Your task to perform on an android device: toggle translation in the chrome app Image 0: 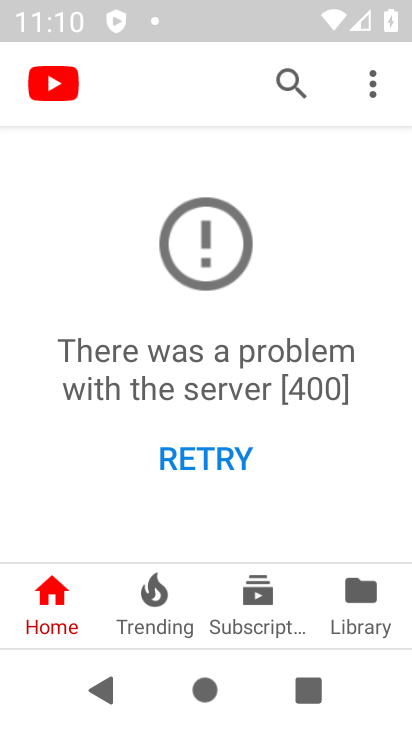
Step 0: press home button
Your task to perform on an android device: toggle translation in the chrome app Image 1: 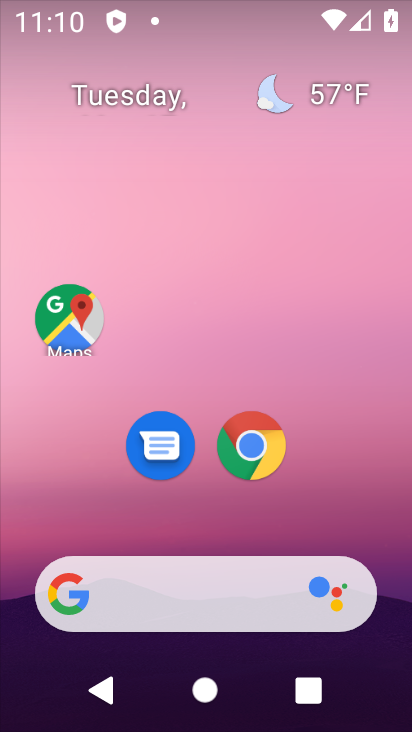
Step 1: drag from (386, 529) to (372, 215)
Your task to perform on an android device: toggle translation in the chrome app Image 2: 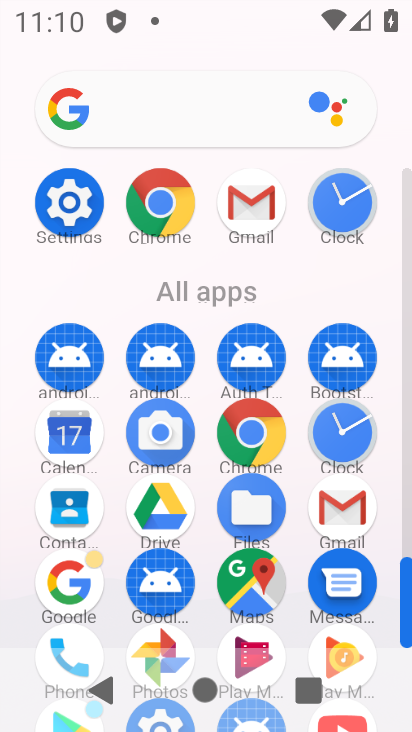
Step 2: click (274, 447)
Your task to perform on an android device: toggle translation in the chrome app Image 3: 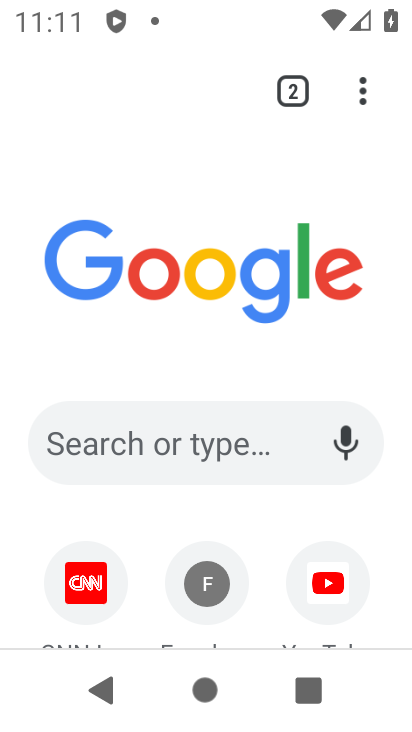
Step 3: click (366, 102)
Your task to perform on an android device: toggle translation in the chrome app Image 4: 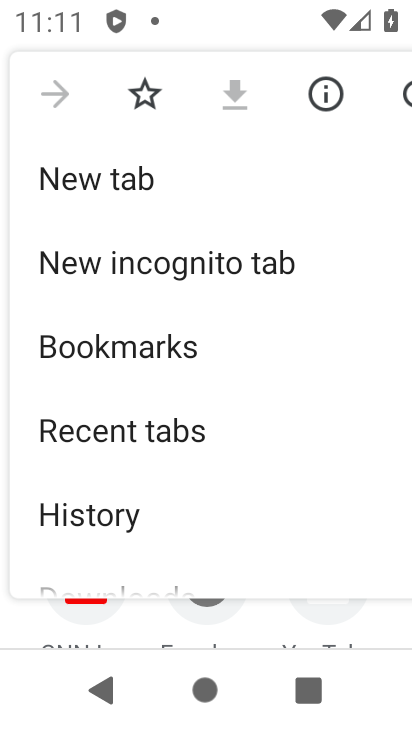
Step 4: drag from (343, 520) to (344, 391)
Your task to perform on an android device: toggle translation in the chrome app Image 5: 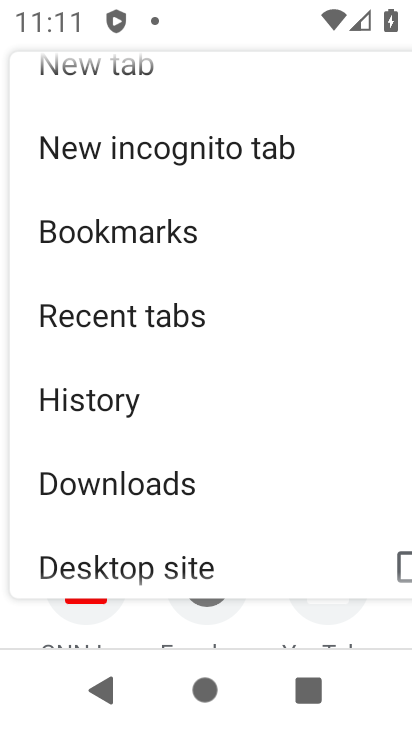
Step 5: drag from (329, 520) to (329, 431)
Your task to perform on an android device: toggle translation in the chrome app Image 6: 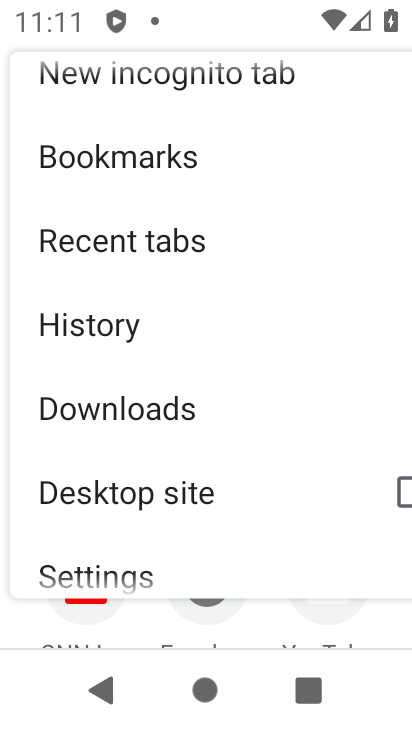
Step 6: drag from (318, 529) to (316, 424)
Your task to perform on an android device: toggle translation in the chrome app Image 7: 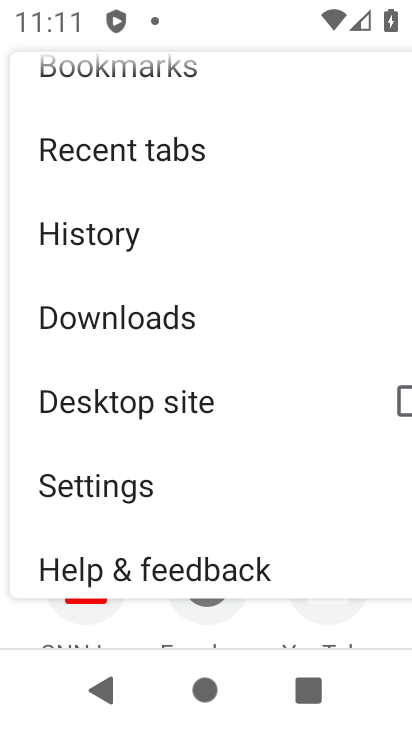
Step 7: drag from (298, 529) to (299, 399)
Your task to perform on an android device: toggle translation in the chrome app Image 8: 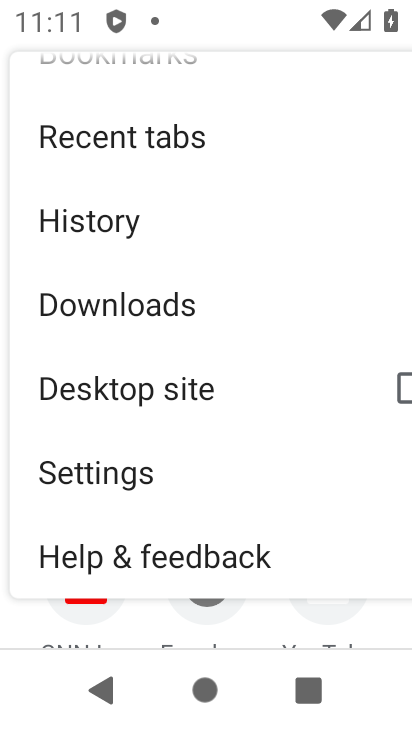
Step 8: drag from (315, 510) to (320, 393)
Your task to perform on an android device: toggle translation in the chrome app Image 9: 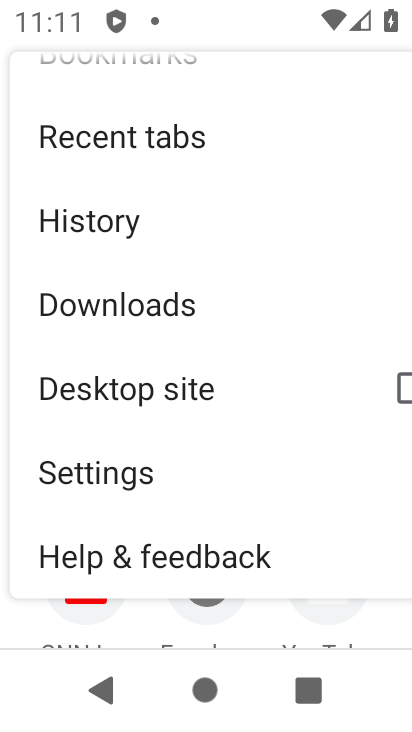
Step 9: drag from (300, 325) to (300, 385)
Your task to perform on an android device: toggle translation in the chrome app Image 10: 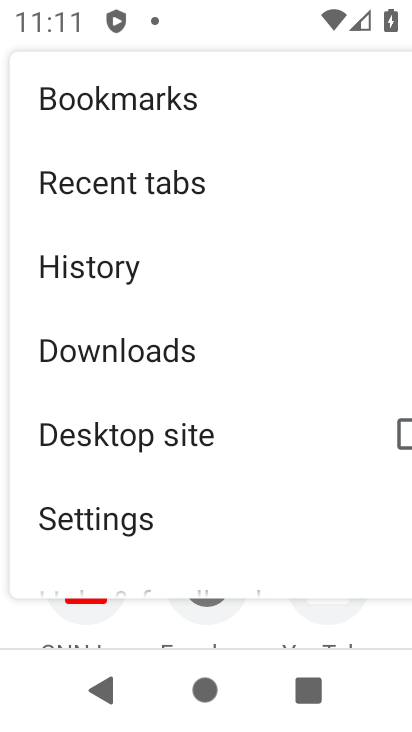
Step 10: click (152, 524)
Your task to perform on an android device: toggle translation in the chrome app Image 11: 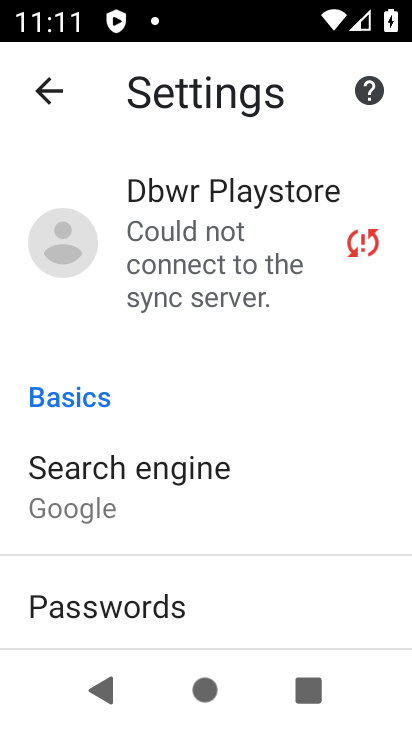
Step 11: drag from (295, 519) to (307, 357)
Your task to perform on an android device: toggle translation in the chrome app Image 12: 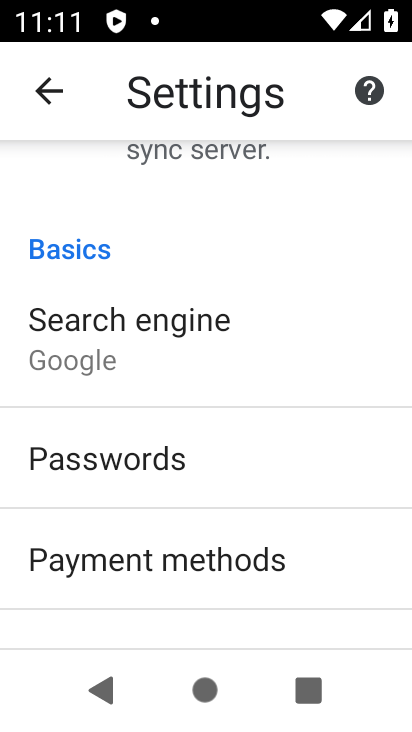
Step 12: drag from (330, 522) to (333, 320)
Your task to perform on an android device: toggle translation in the chrome app Image 13: 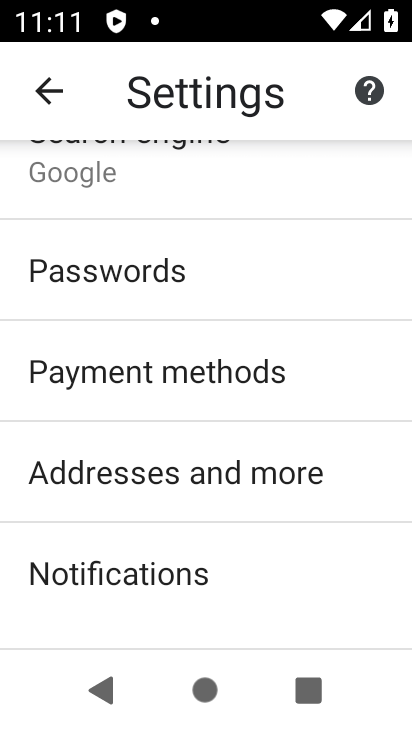
Step 13: drag from (339, 575) to (345, 397)
Your task to perform on an android device: toggle translation in the chrome app Image 14: 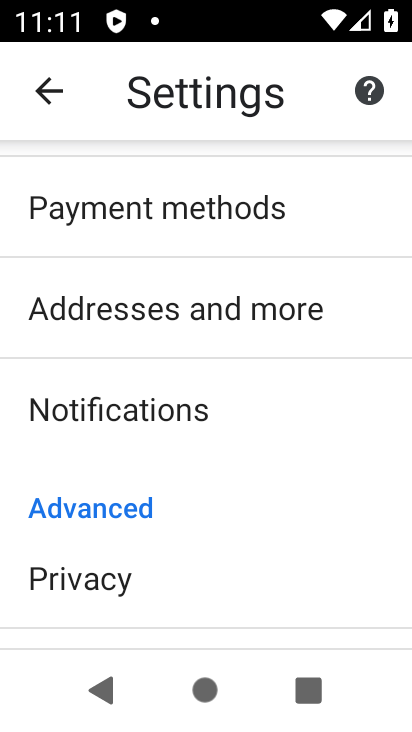
Step 14: drag from (320, 590) to (332, 430)
Your task to perform on an android device: toggle translation in the chrome app Image 15: 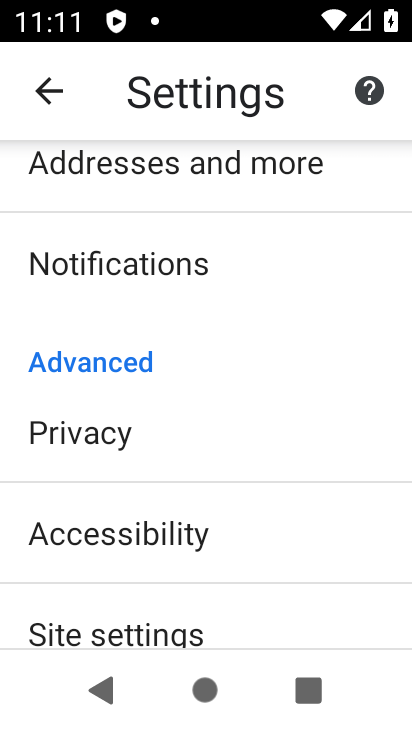
Step 15: drag from (303, 578) to (316, 406)
Your task to perform on an android device: toggle translation in the chrome app Image 16: 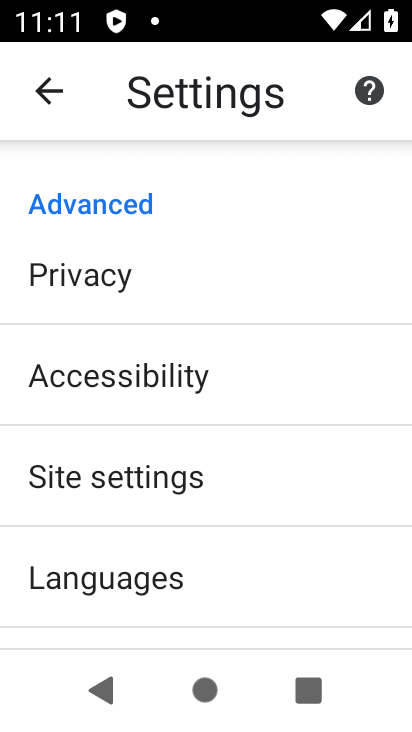
Step 16: drag from (283, 591) to (281, 460)
Your task to perform on an android device: toggle translation in the chrome app Image 17: 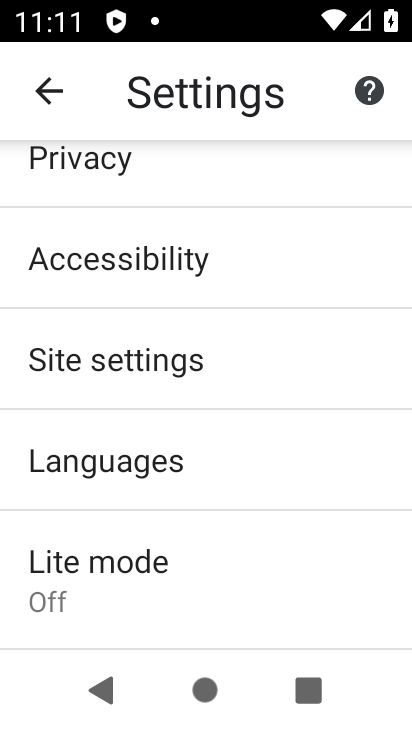
Step 17: drag from (272, 553) to (268, 475)
Your task to perform on an android device: toggle translation in the chrome app Image 18: 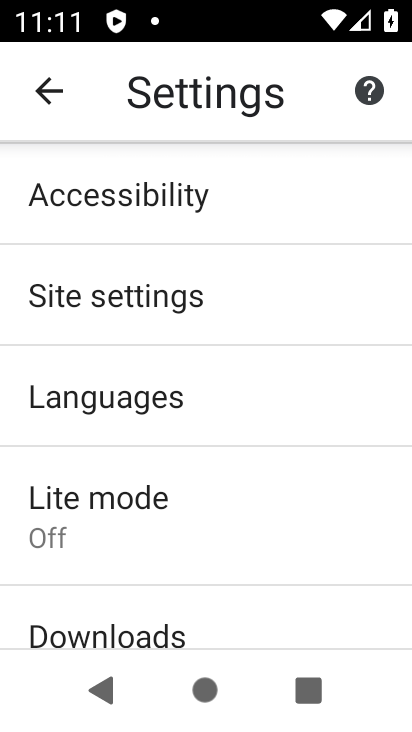
Step 18: click (231, 399)
Your task to perform on an android device: toggle translation in the chrome app Image 19: 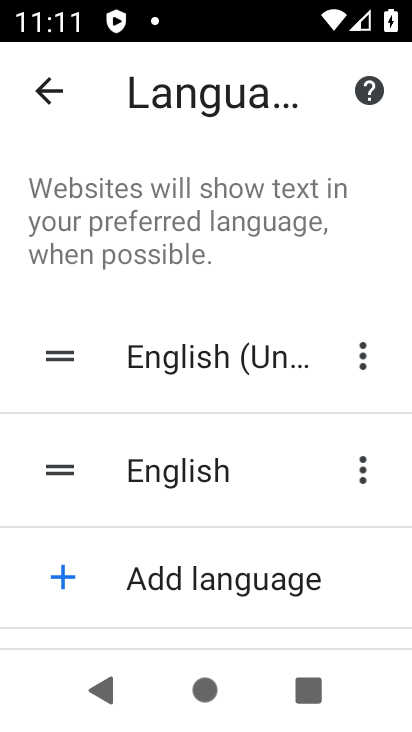
Step 19: drag from (270, 541) to (272, 410)
Your task to perform on an android device: toggle translation in the chrome app Image 20: 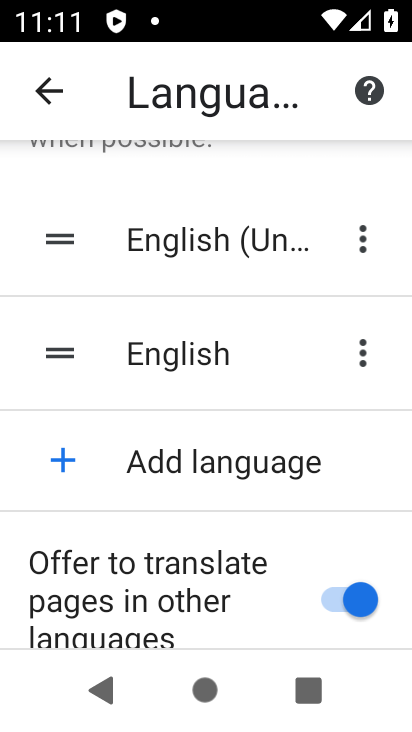
Step 20: click (366, 611)
Your task to perform on an android device: toggle translation in the chrome app Image 21: 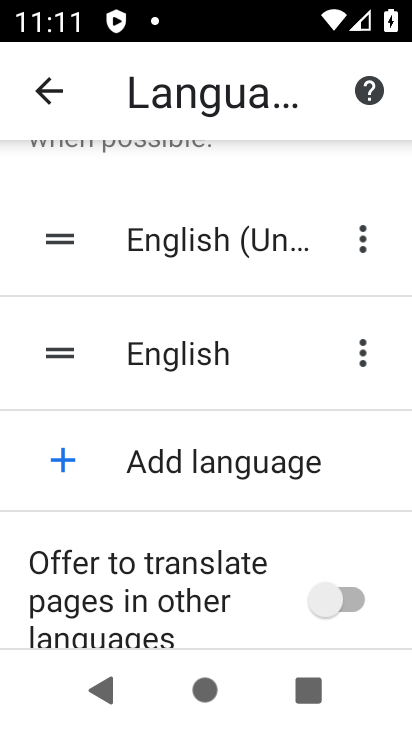
Step 21: task complete